Your task to perform on an android device: toggle translation in the chrome app Image 0: 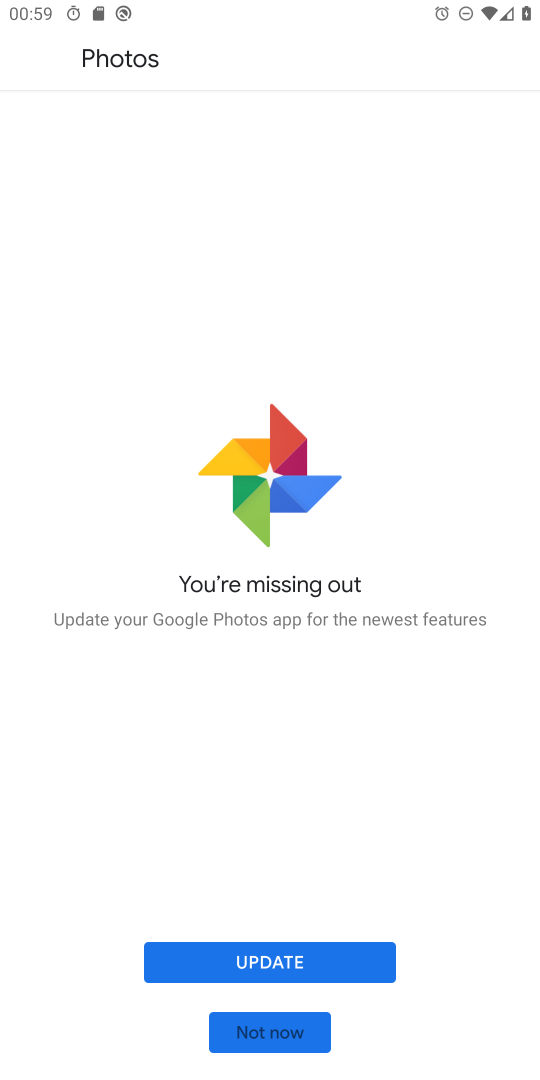
Step 0: press home button
Your task to perform on an android device: toggle translation in the chrome app Image 1: 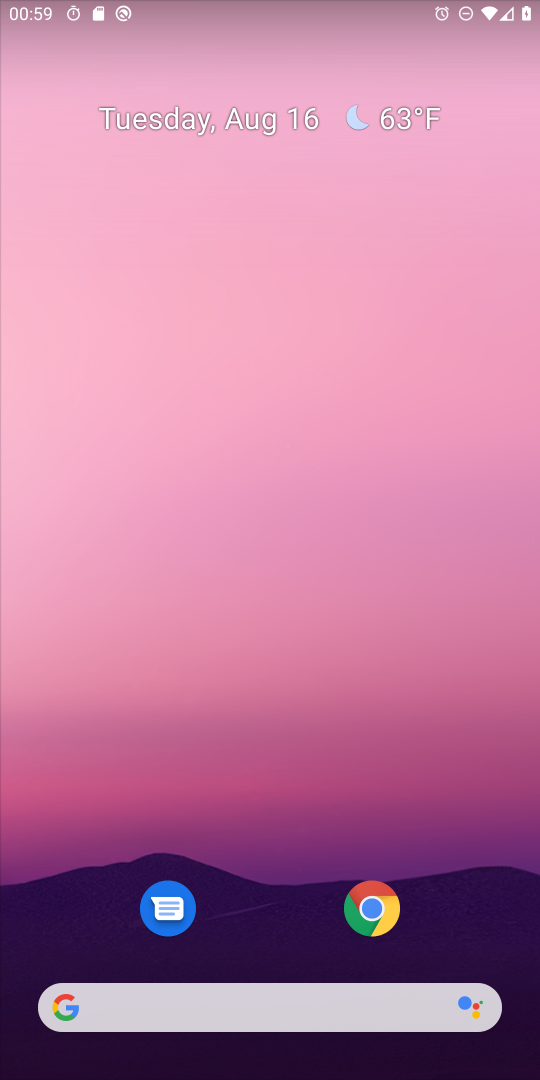
Step 1: click (358, 913)
Your task to perform on an android device: toggle translation in the chrome app Image 2: 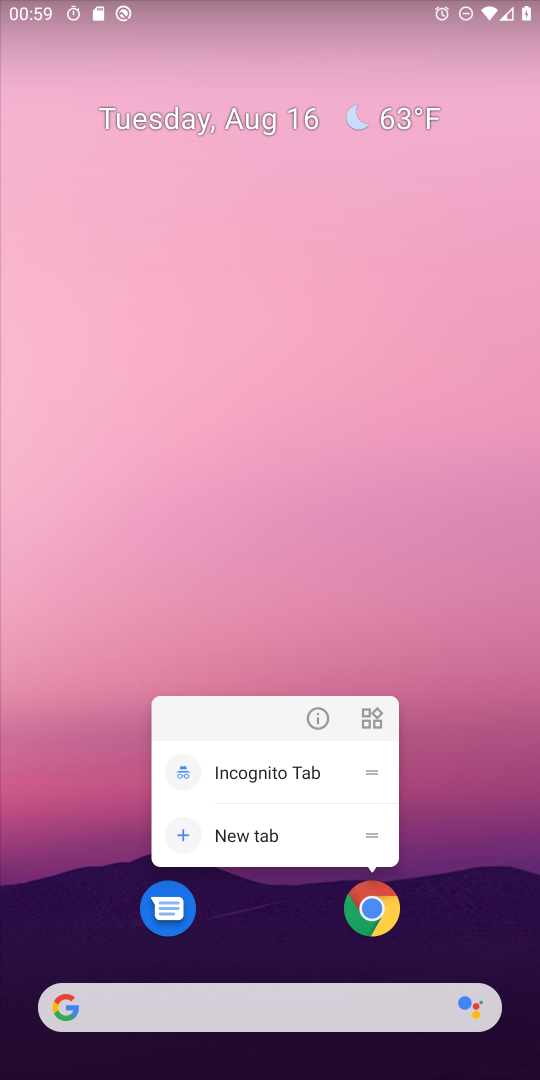
Step 2: click (384, 910)
Your task to perform on an android device: toggle translation in the chrome app Image 3: 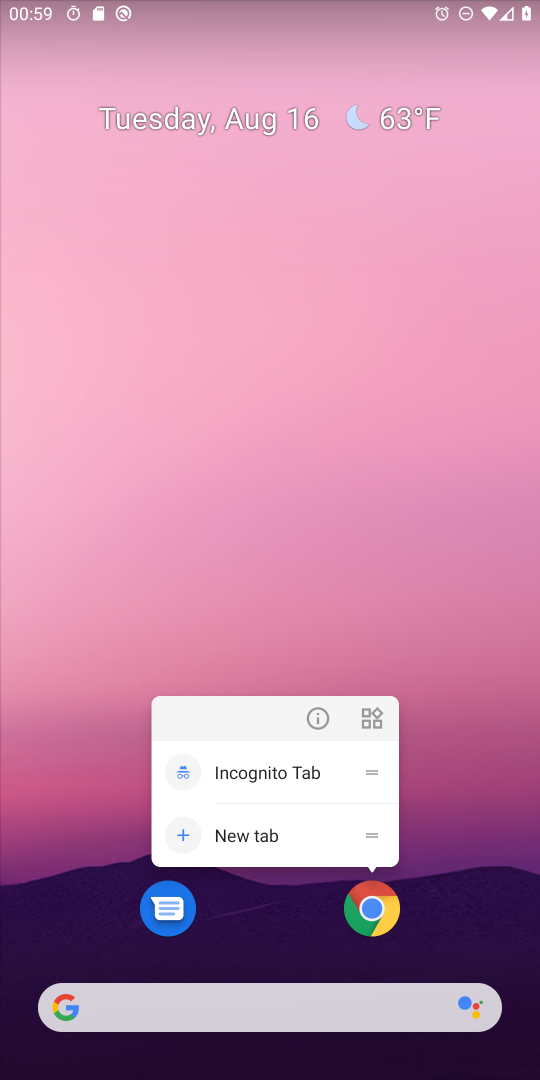
Step 3: click (372, 907)
Your task to perform on an android device: toggle translation in the chrome app Image 4: 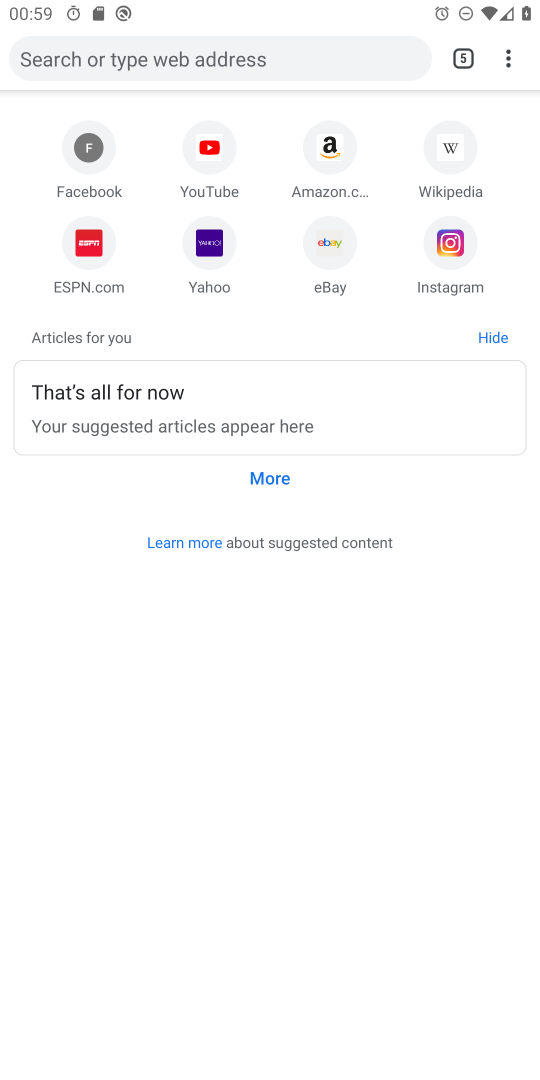
Step 4: click (509, 53)
Your task to perform on an android device: toggle translation in the chrome app Image 5: 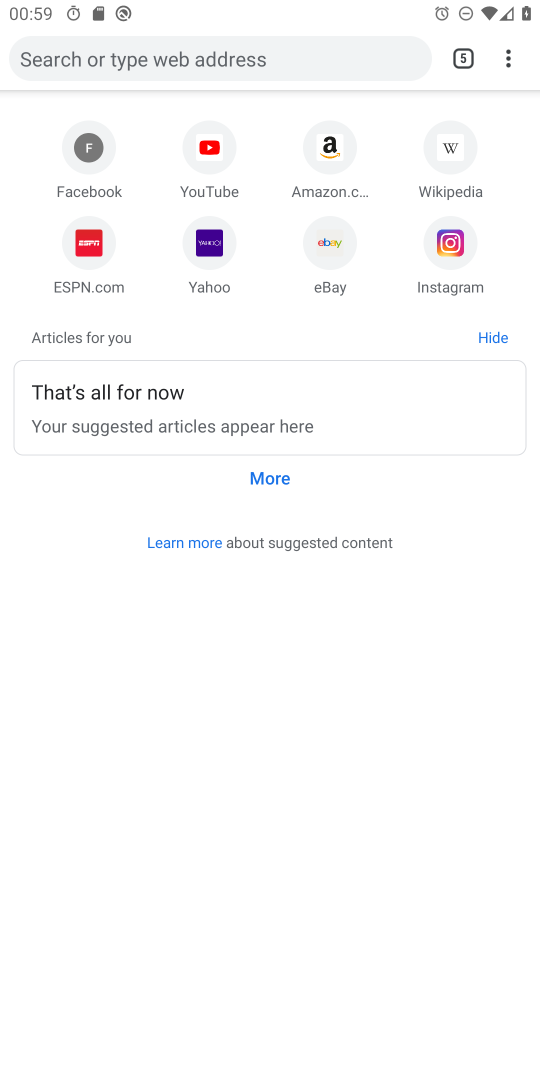
Step 5: click (509, 53)
Your task to perform on an android device: toggle translation in the chrome app Image 6: 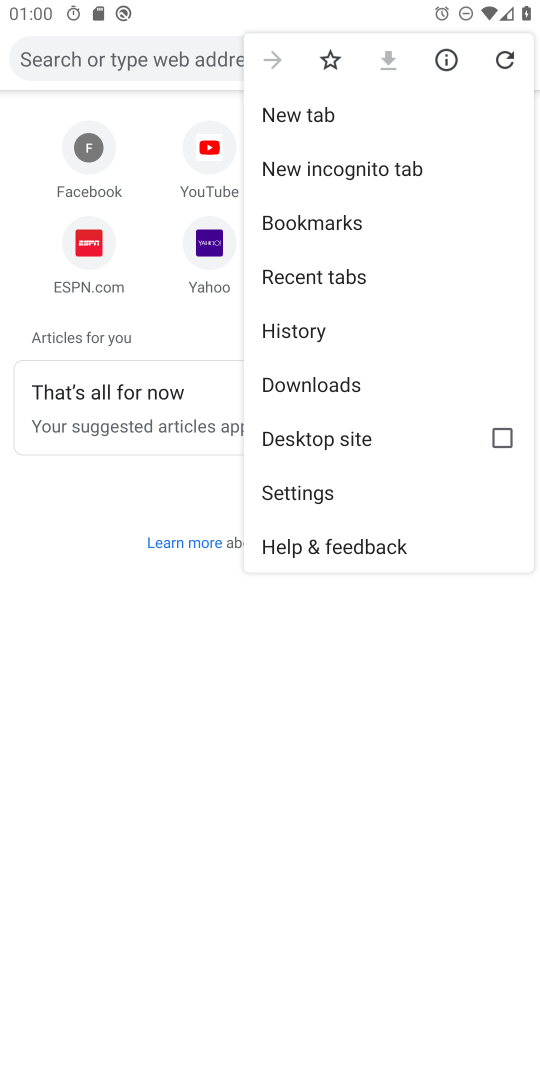
Step 6: click (308, 501)
Your task to perform on an android device: toggle translation in the chrome app Image 7: 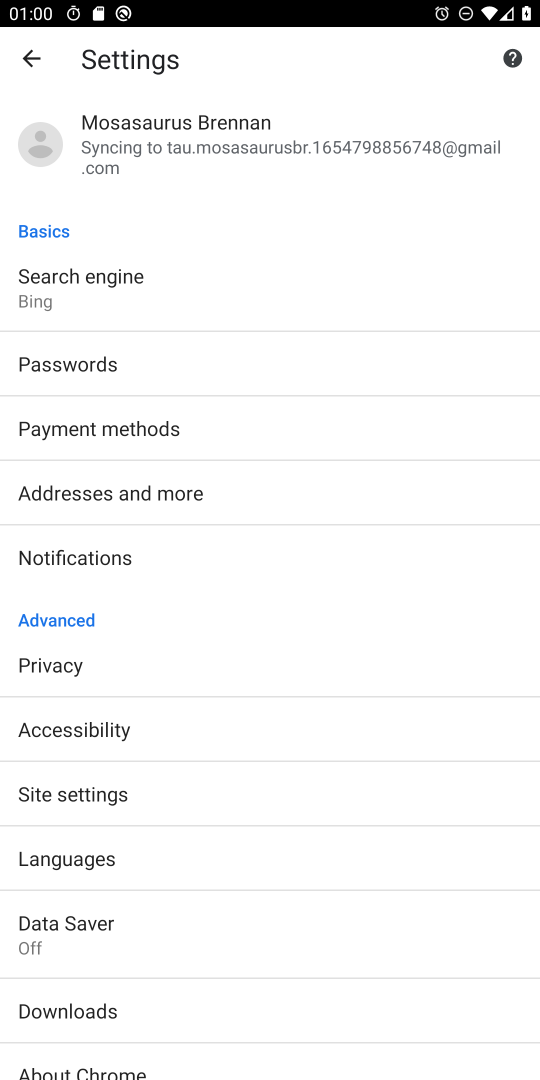
Step 7: click (59, 876)
Your task to perform on an android device: toggle translation in the chrome app Image 8: 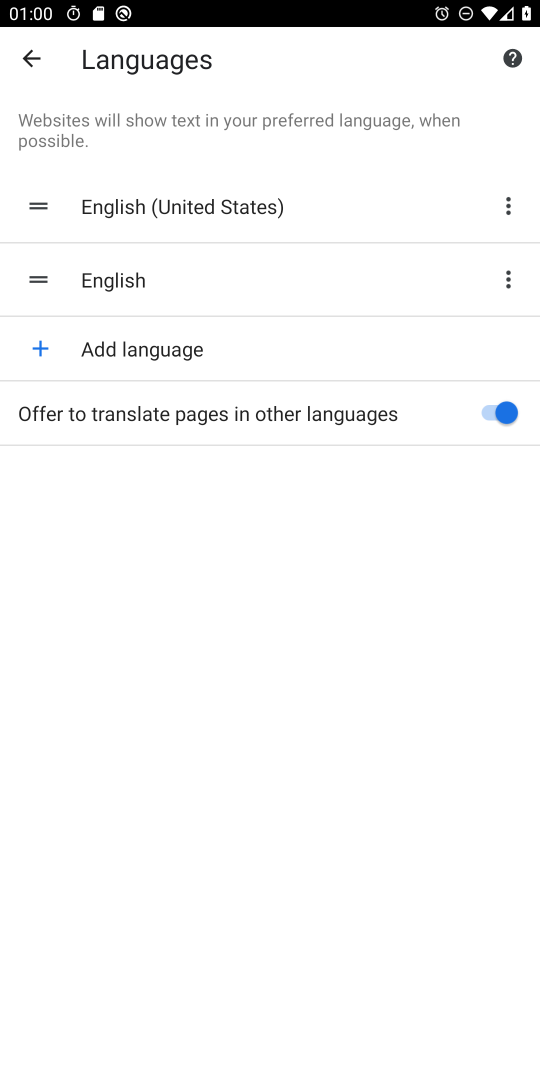
Step 8: click (495, 412)
Your task to perform on an android device: toggle translation in the chrome app Image 9: 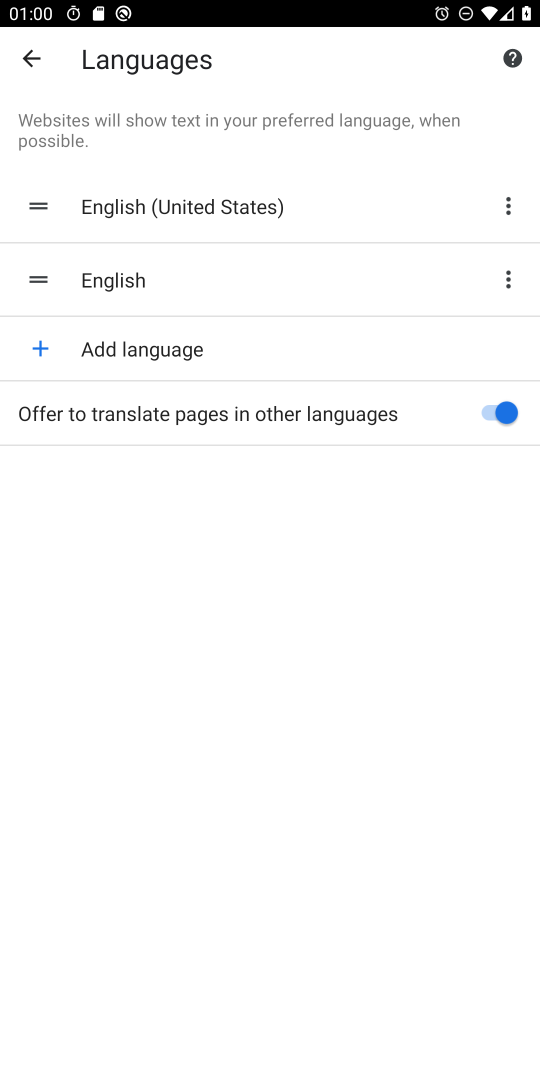
Step 9: click (495, 412)
Your task to perform on an android device: toggle translation in the chrome app Image 10: 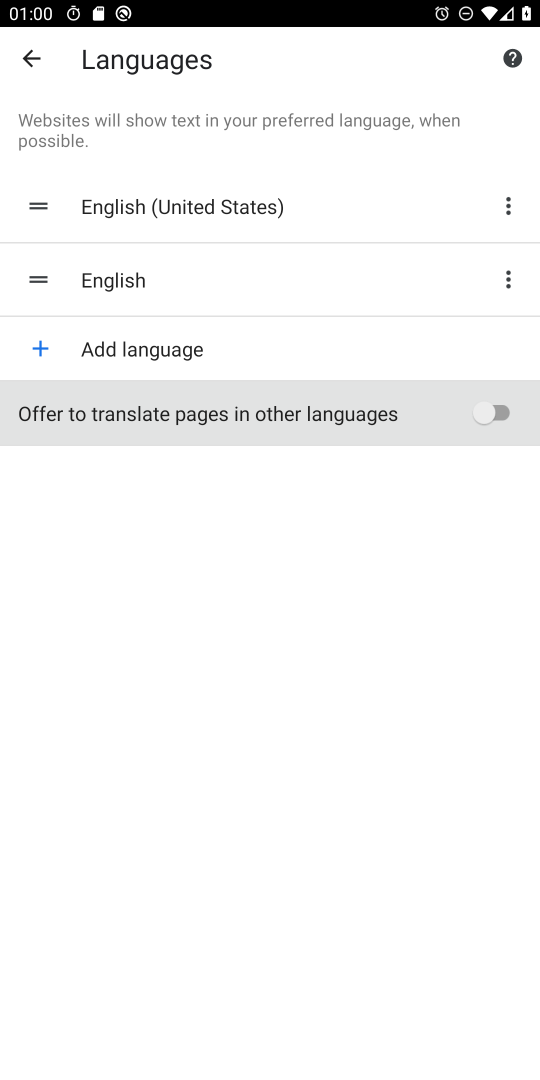
Step 10: click (495, 412)
Your task to perform on an android device: toggle translation in the chrome app Image 11: 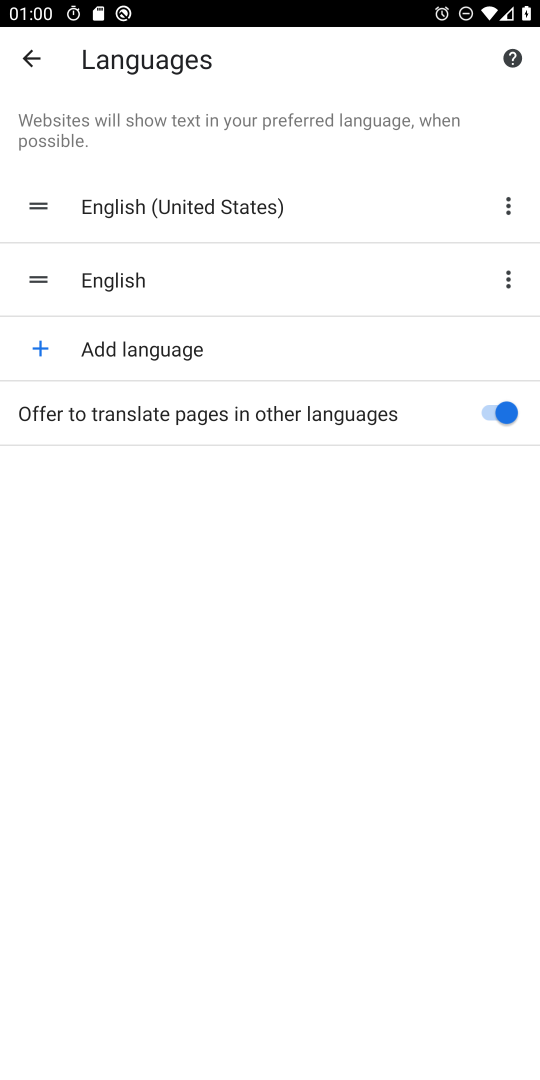
Step 11: click (495, 412)
Your task to perform on an android device: toggle translation in the chrome app Image 12: 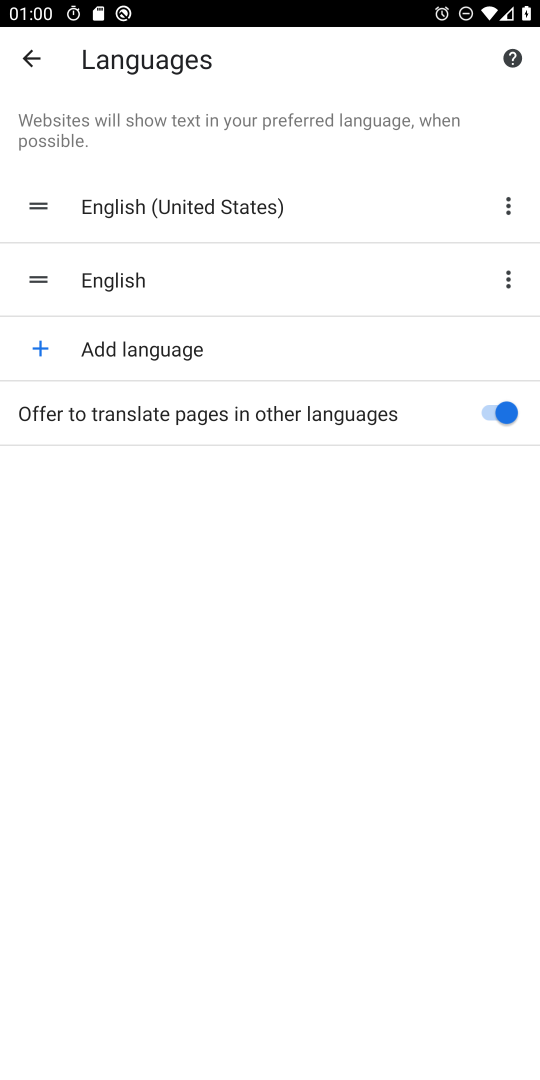
Step 12: click (495, 412)
Your task to perform on an android device: toggle translation in the chrome app Image 13: 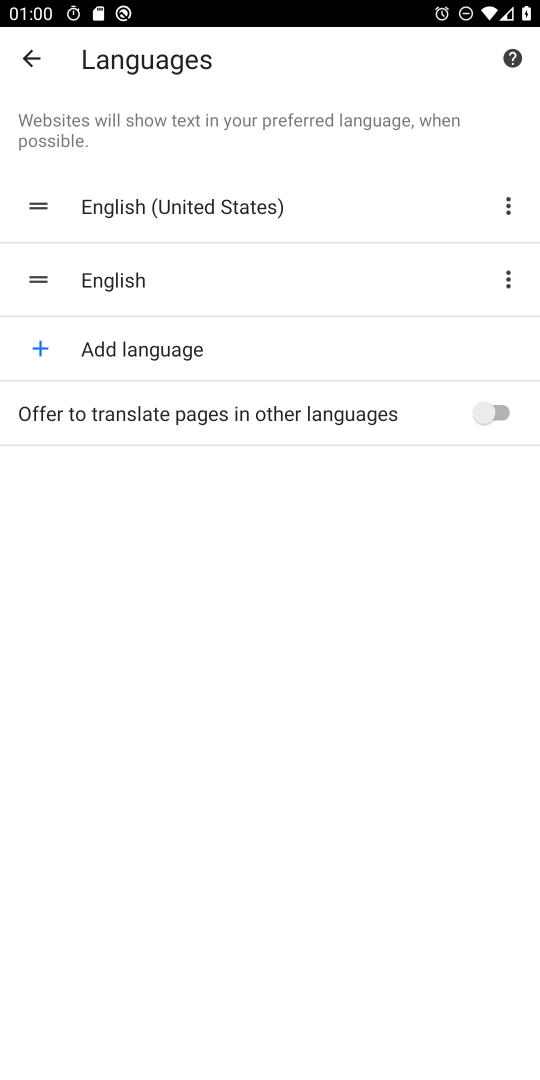
Step 13: task complete